Your task to perform on an android device: Play the last video I watched on Youtube Image 0: 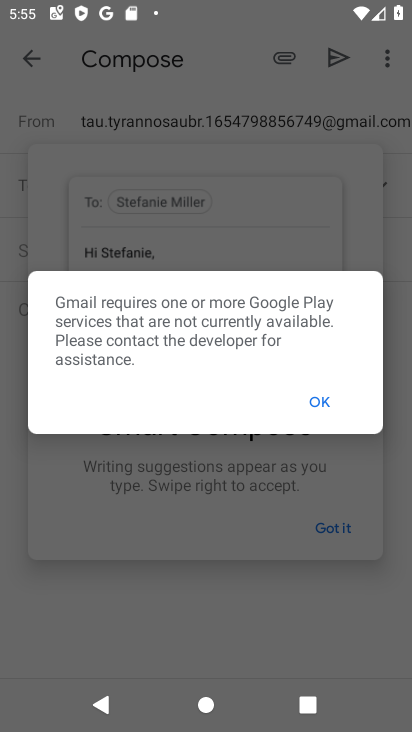
Step 0: press home button
Your task to perform on an android device: Play the last video I watched on Youtube Image 1: 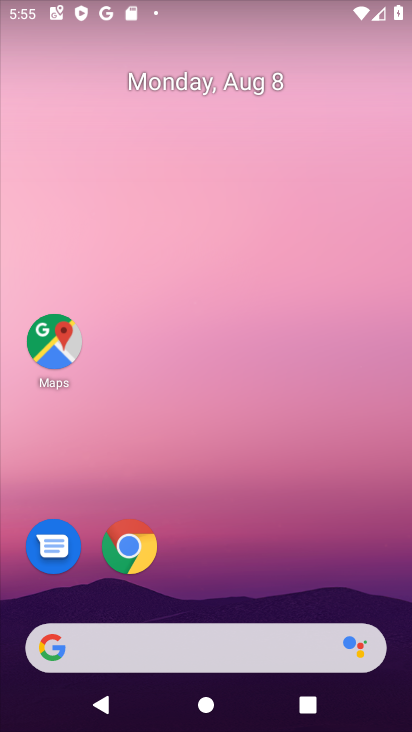
Step 1: drag from (219, 587) to (189, 143)
Your task to perform on an android device: Play the last video I watched on Youtube Image 2: 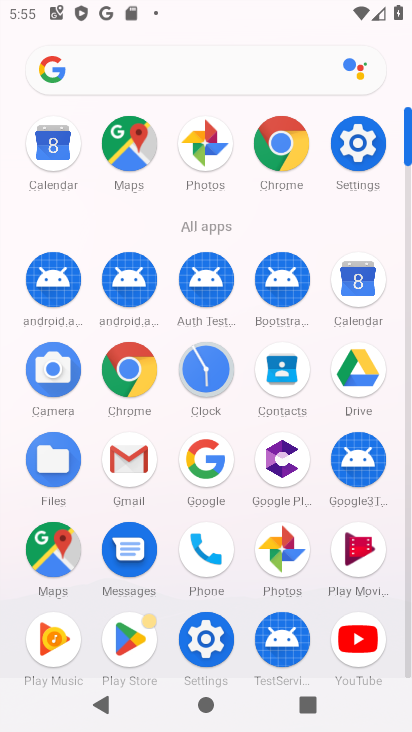
Step 2: click (351, 626)
Your task to perform on an android device: Play the last video I watched on Youtube Image 3: 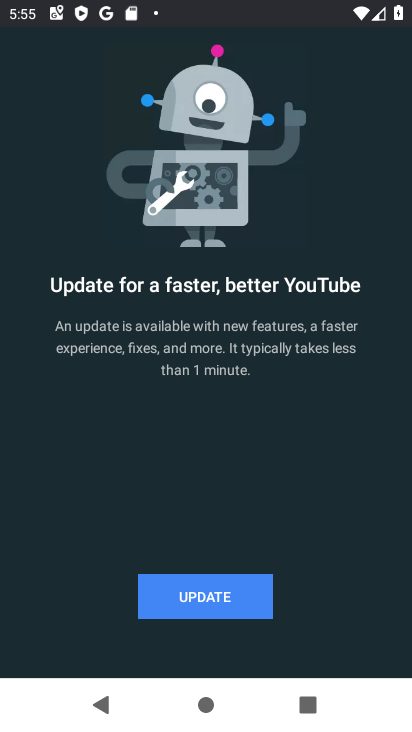
Step 3: click (177, 583)
Your task to perform on an android device: Play the last video I watched on Youtube Image 4: 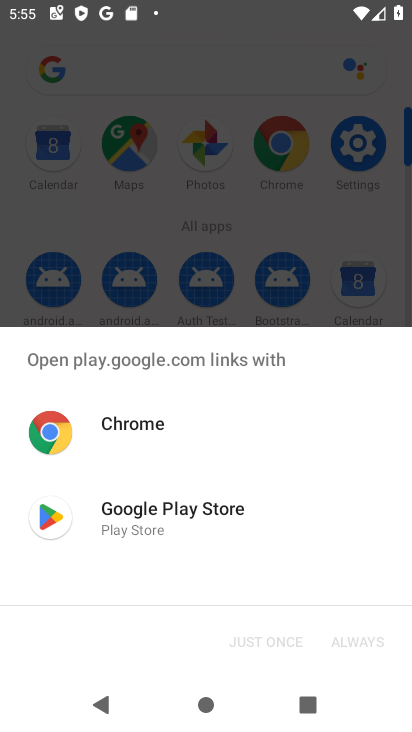
Step 4: click (115, 503)
Your task to perform on an android device: Play the last video I watched on Youtube Image 5: 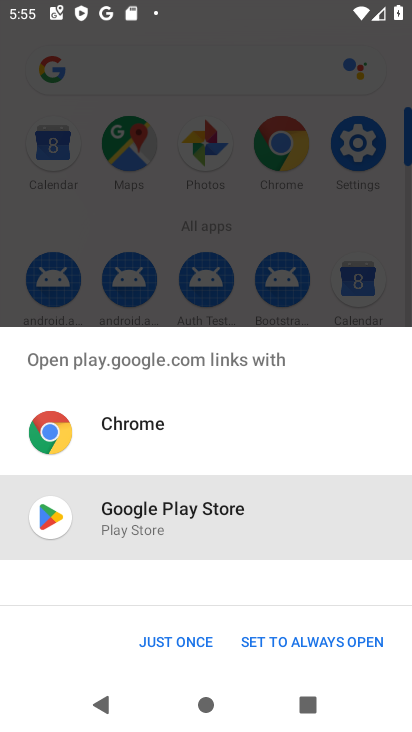
Step 5: click (165, 644)
Your task to perform on an android device: Play the last video I watched on Youtube Image 6: 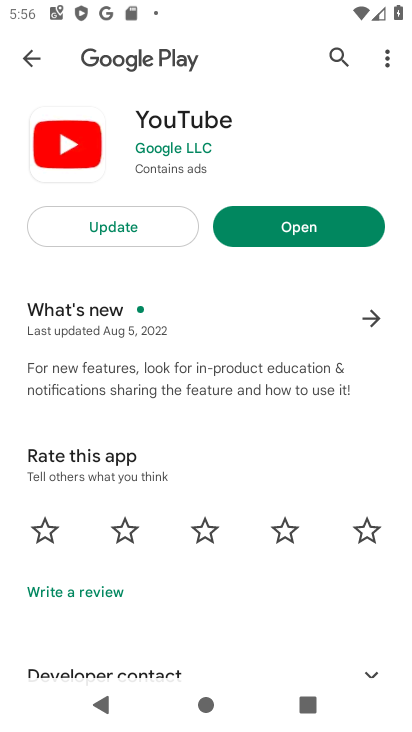
Step 6: click (173, 223)
Your task to perform on an android device: Play the last video I watched on Youtube Image 7: 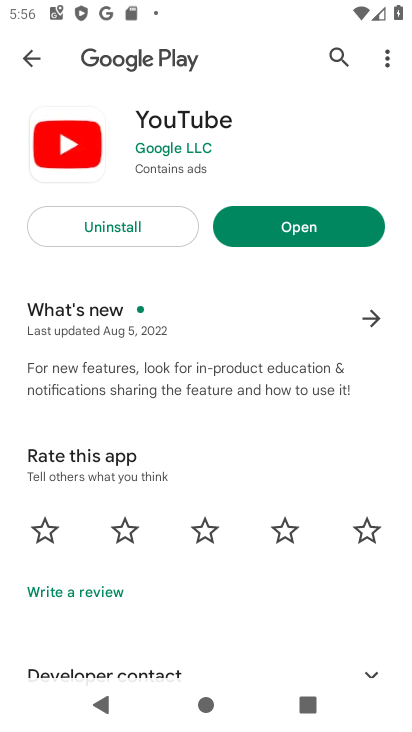
Step 7: click (259, 236)
Your task to perform on an android device: Play the last video I watched on Youtube Image 8: 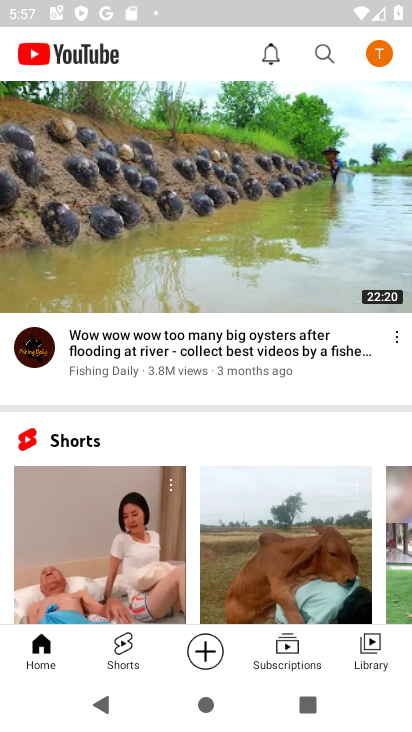
Step 8: click (367, 670)
Your task to perform on an android device: Play the last video I watched on Youtube Image 9: 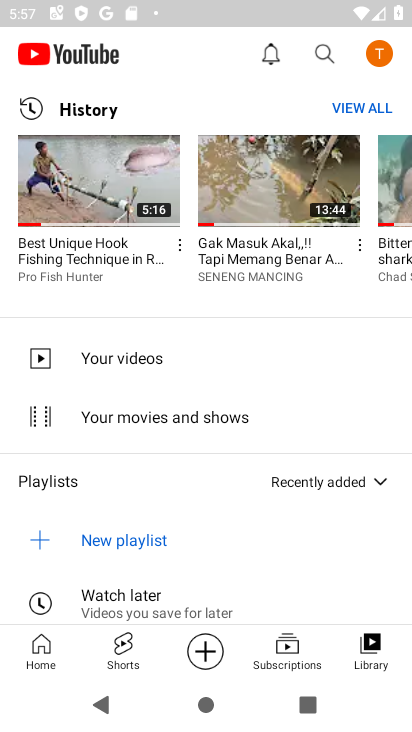
Step 9: click (97, 200)
Your task to perform on an android device: Play the last video I watched on Youtube Image 10: 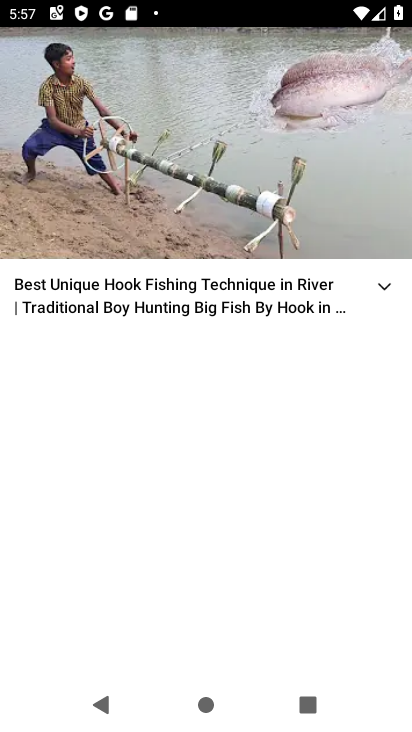
Step 10: click (194, 155)
Your task to perform on an android device: Play the last video I watched on Youtube Image 11: 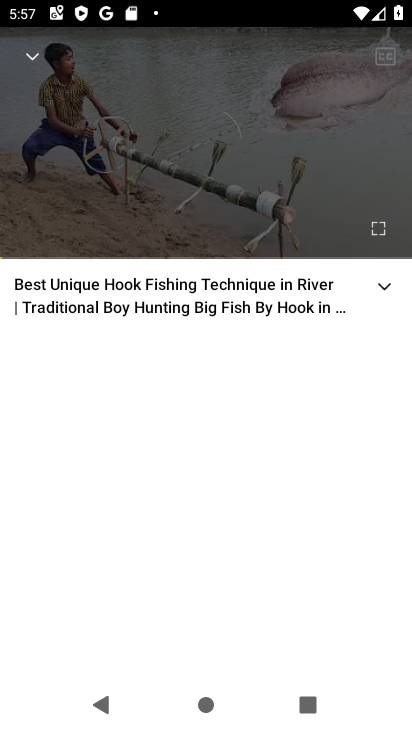
Step 11: click (188, 136)
Your task to perform on an android device: Play the last video I watched on Youtube Image 12: 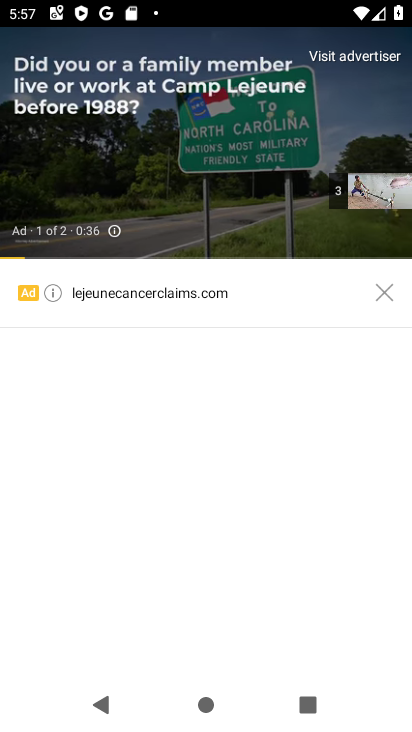
Step 12: click (201, 141)
Your task to perform on an android device: Play the last video I watched on Youtube Image 13: 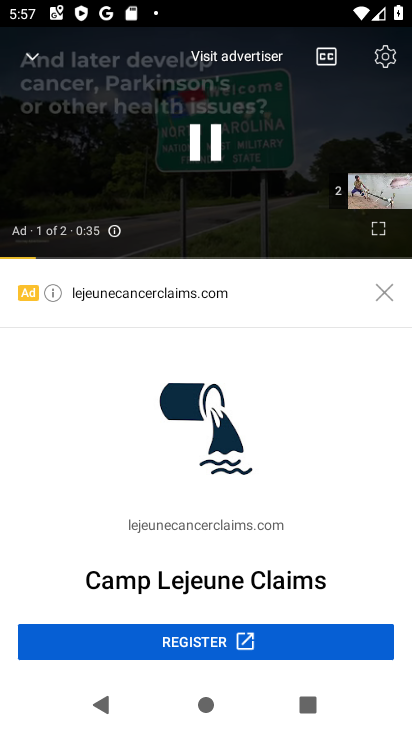
Step 13: click (201, 141)
Your task to perform on an android device: Play the last video I watched on Youtube Image 14: 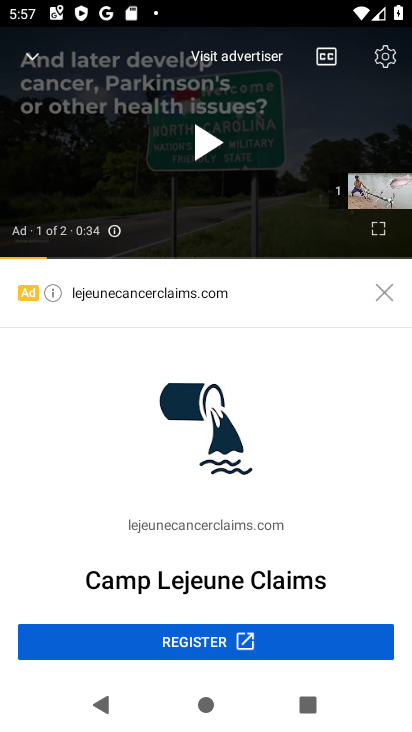
Step 14: task complete